Your task to perform on an android device: Open CNN.com Image 0: 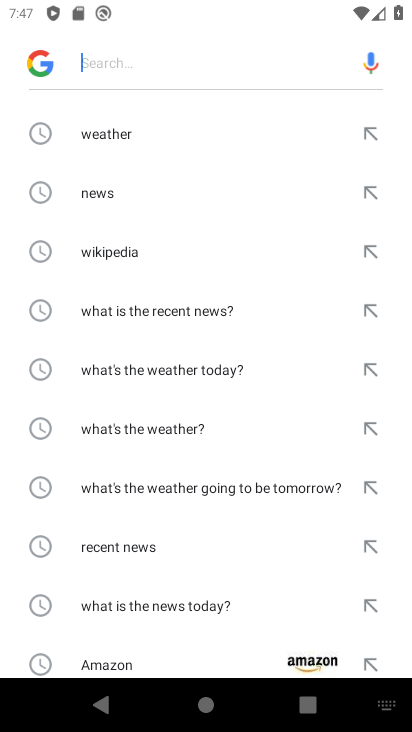
Step 0: press home button
Your task to perform on an android device: Open CNN.com Image 1: 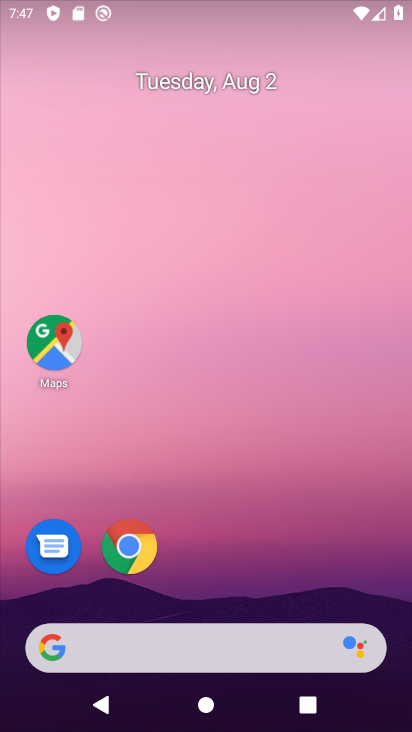
Step 1: click (128, 553)
Your task to perform on an android device: Open CNN.com Image 2: 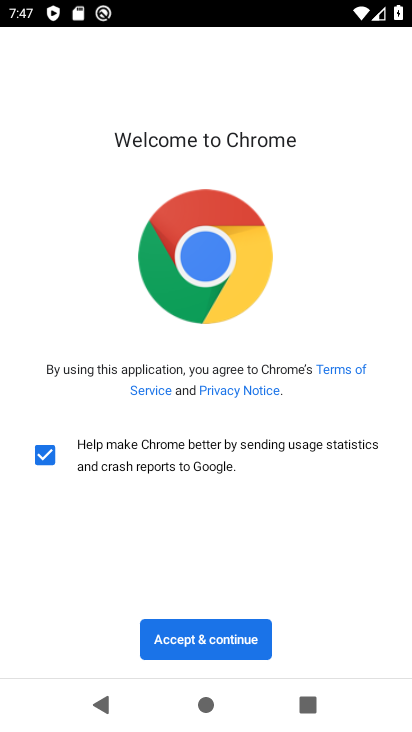
Step 2: click (233, 632)
Your task to perform on an android device: Open CNN.com Image 3: 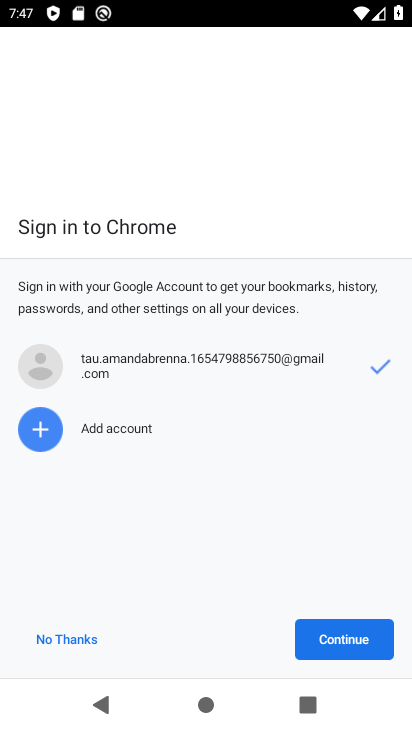
Step 3: click (349, 643)
Your task to perform on an android device: Open CNN.com Image 4: 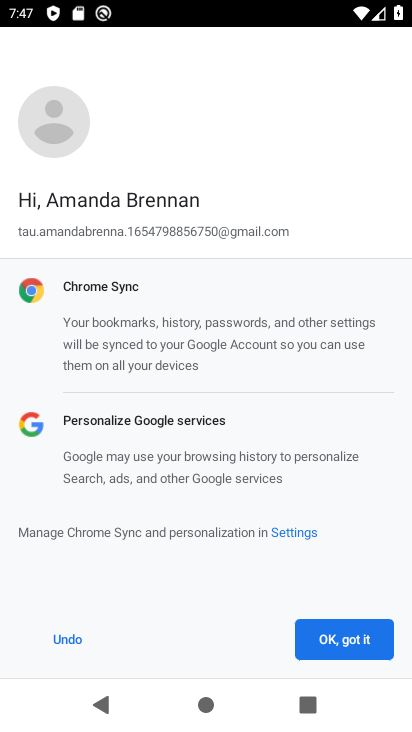
Step 4: click (349, 643)
Your task to perform on an android device: Open CNN.com Image 5: 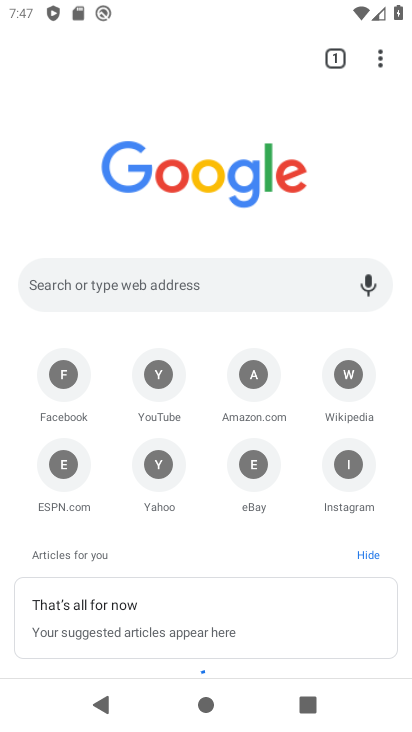
Step 5: click (217, 299)
Your task to perform on an android device: Open CNN.com Image 6: 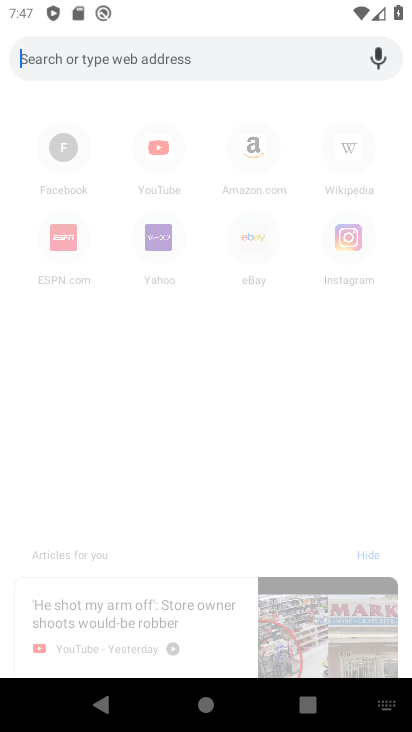
Step 6: type "CNN.com"
Your task to perform on an android device: Open CNN.com Image 7: 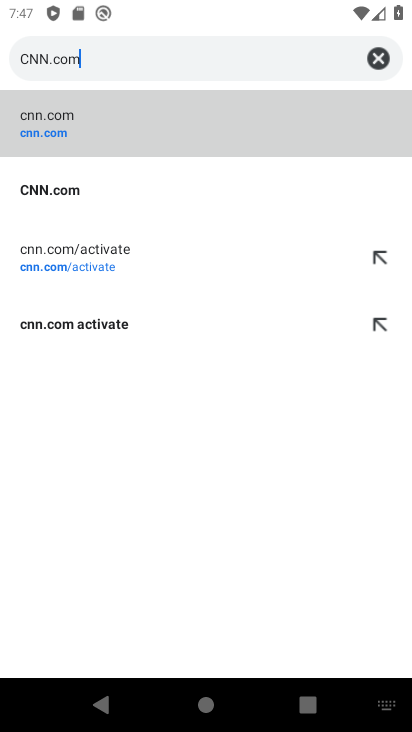
Step 7: click (187, 143)
Your task to perform on an android device: Open CNN.com Image 8: 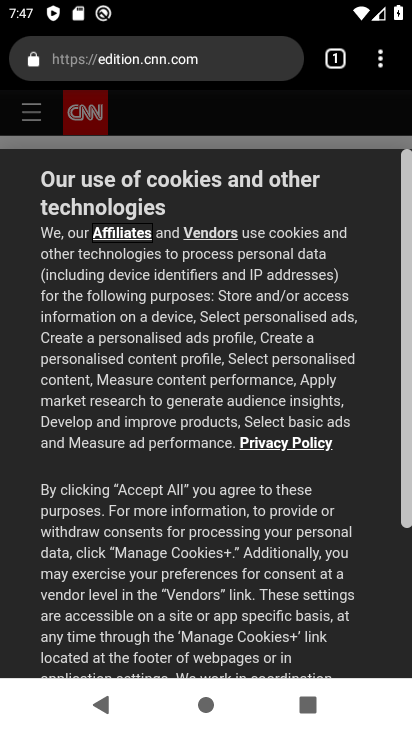
Step 8: task complete